Your task to perform on an android device: check out phone information Image 0: 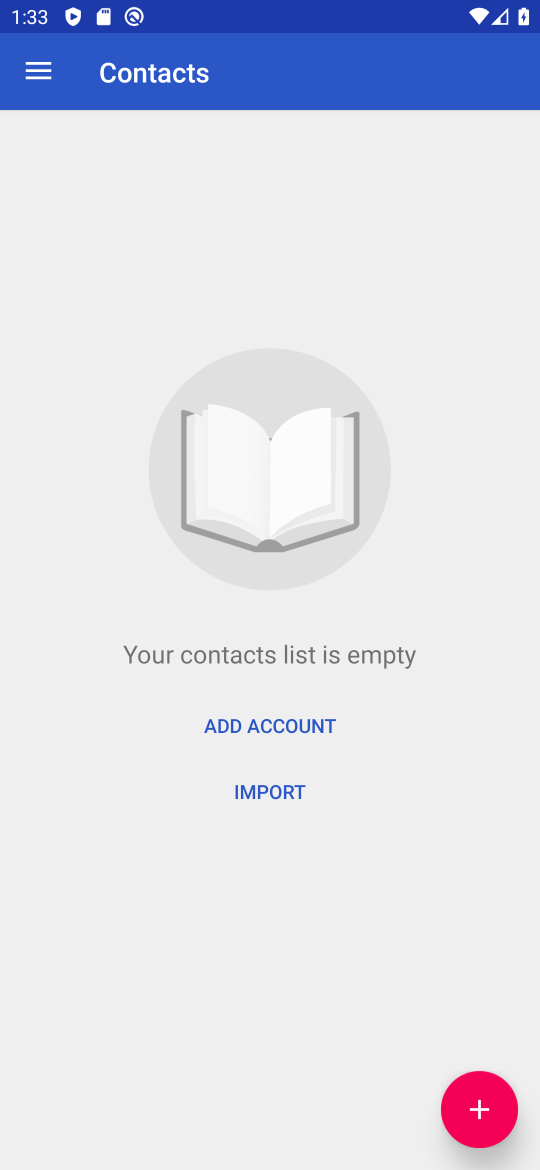
Step 0: press home button
Your task to perform on an android device: check out phone information Image 1: 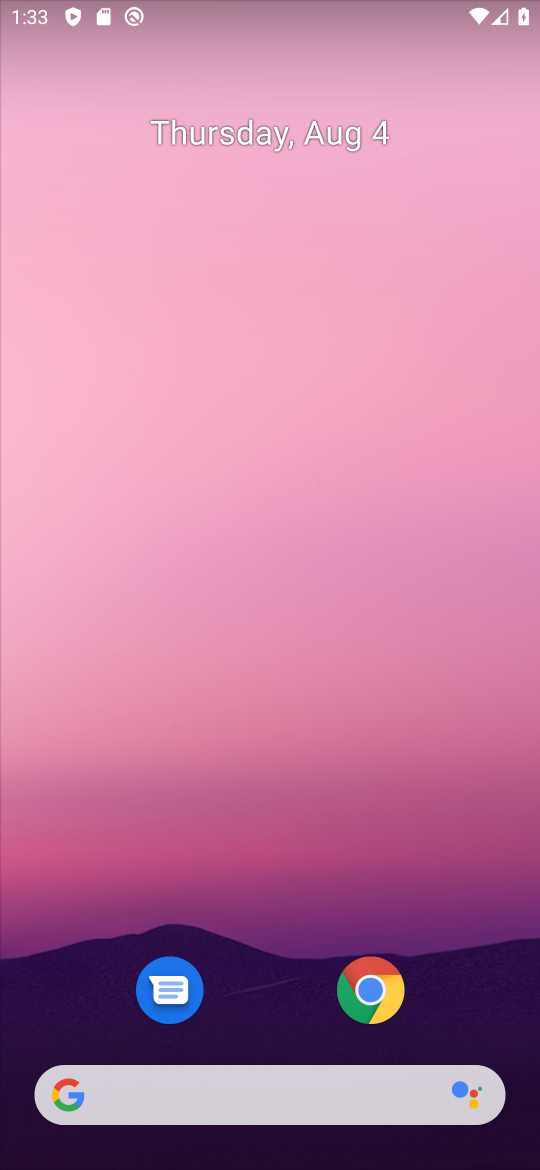
Step 1: drag from (241, 1053) to (322, 184)
Your task to perform on an android device: check out phone information Image 2: 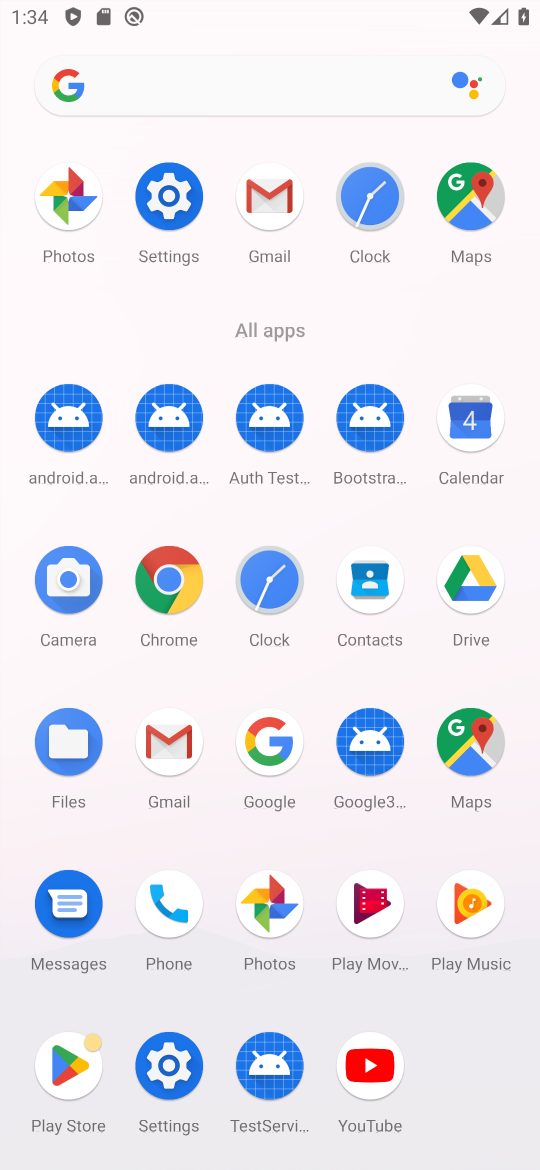
Step 2: click (170, 247)
Your task to perform on an android device: check out phone information Image 3: 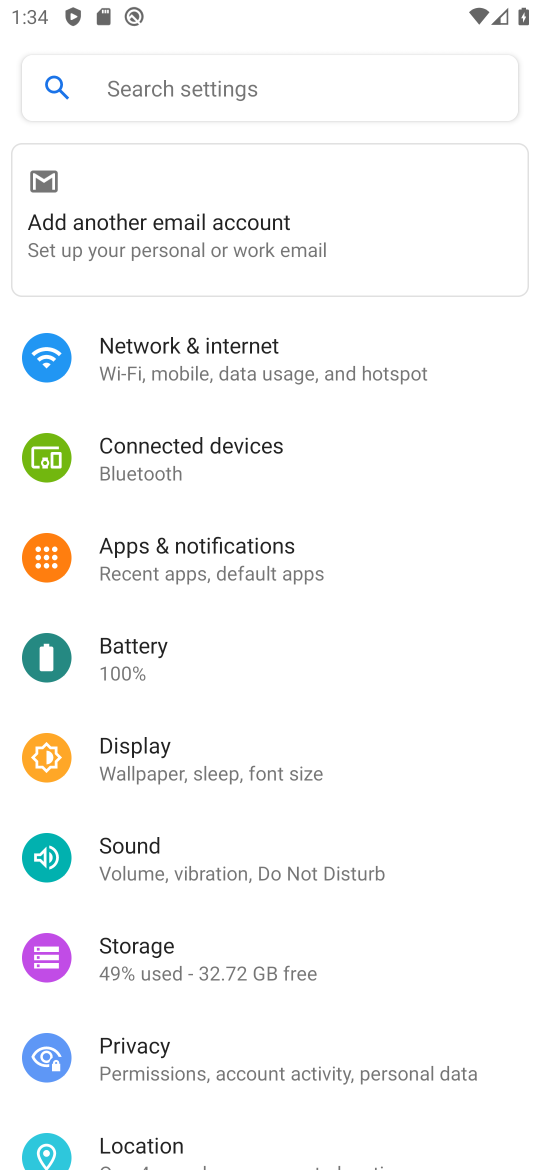
Step 3: task complete